Your task to perform on an android device: all mails in gmail Image 0: 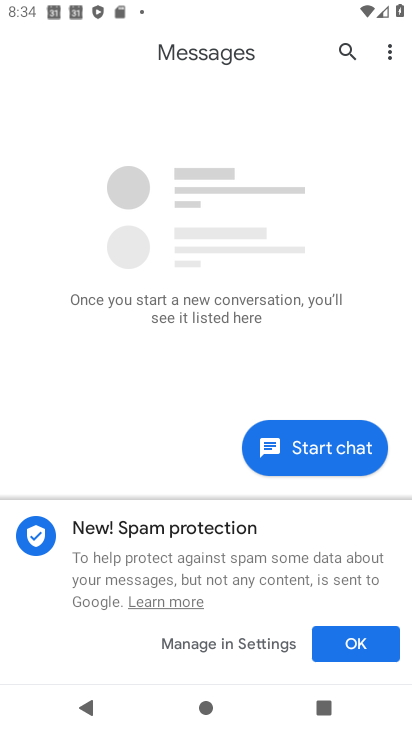
Step 0: press home button
Your task to perform on an android device: all mails in gmail Image 1: 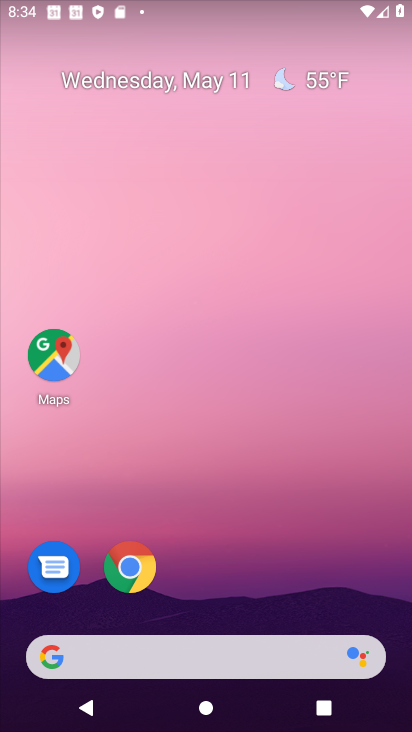
Step 1: drag from (197, 580) to (273, 15)
Your task to perform on an android device: all mails in gmail Image 2: 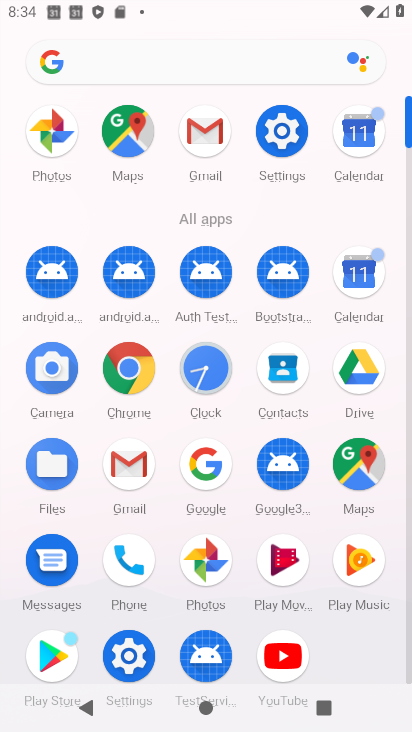
Step 2: click (137, 468)
Your task to perform on an android device: all mails in gmail Image 3: 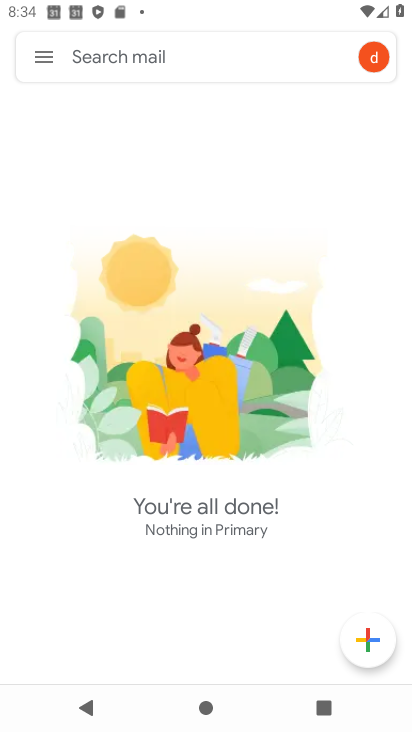
Step 3: click (47, 67)
Your task to perform on an android device: all mails in gmail Image 4: 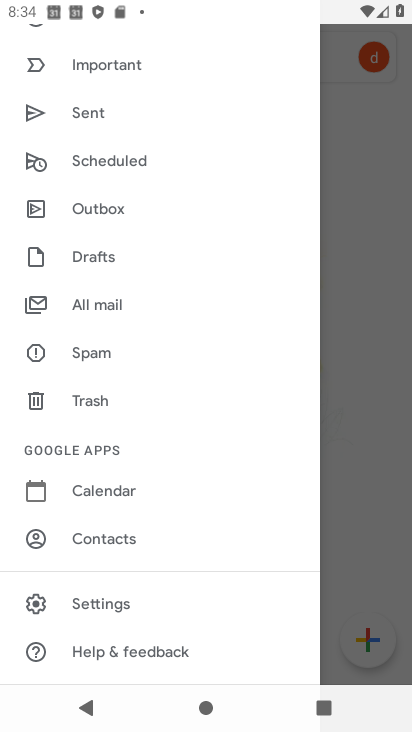
Step 4: click (106, 311)
Your task to perform on an android device: all mails in gmail Image 5: 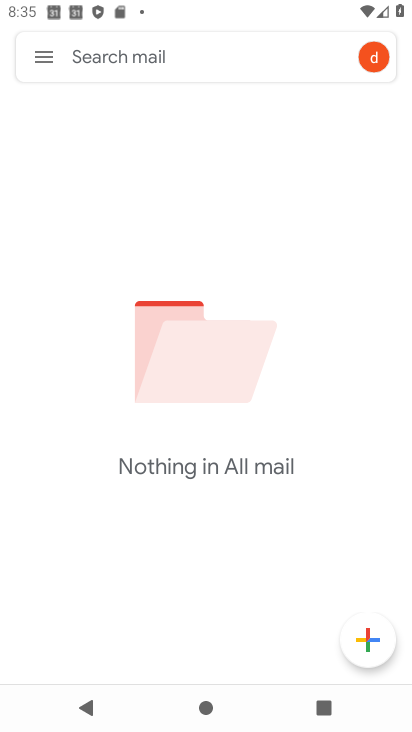
Step 5: task complete